Your task to perform on an android device: check out phone information Image 0: 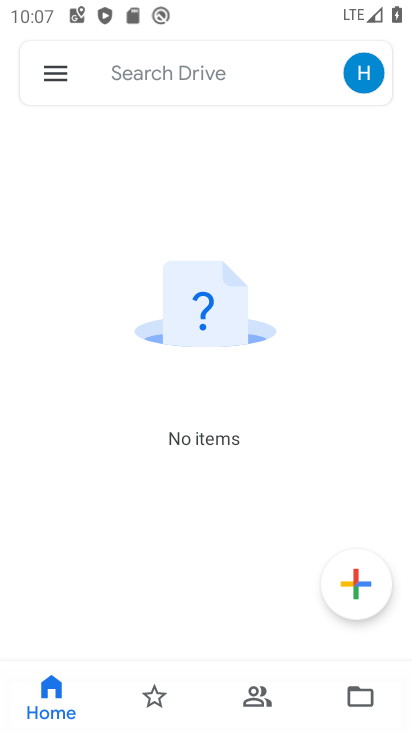
Step 0: drag from (228, 241) to (242, 73)
Your task to perform on an android device: check out phone information Image 1: 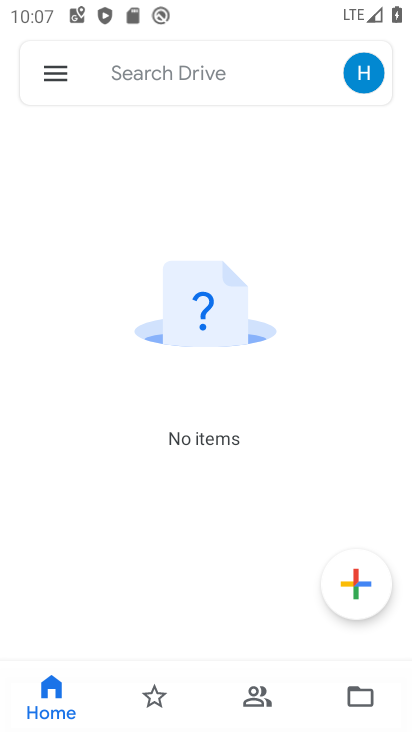
Step 1: press home button
Your task to perform on an android device: check out phone information Image 2: 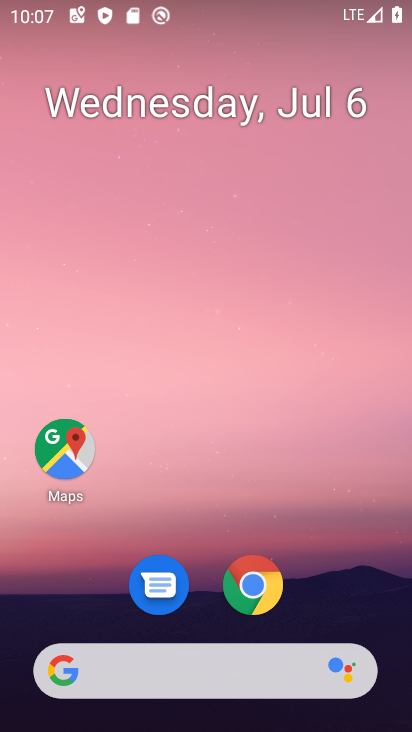
Step 2: drag from (198, 492) to (213, 21)
Your task to perform on an android device: check out phone information Image 3: 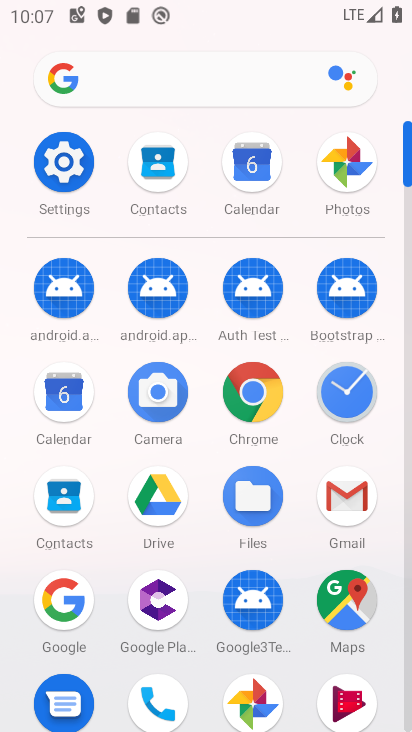
Step 3: drag from (198, 527) to (215, 297)
Your task to perform on an android device: check out phone information Image 4: 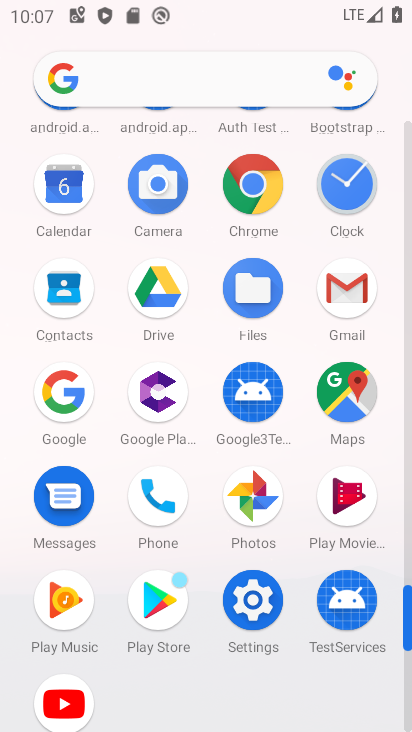
Step 4: click (167, 498)
Your task to perform on an android device: check out phone information Image 5: 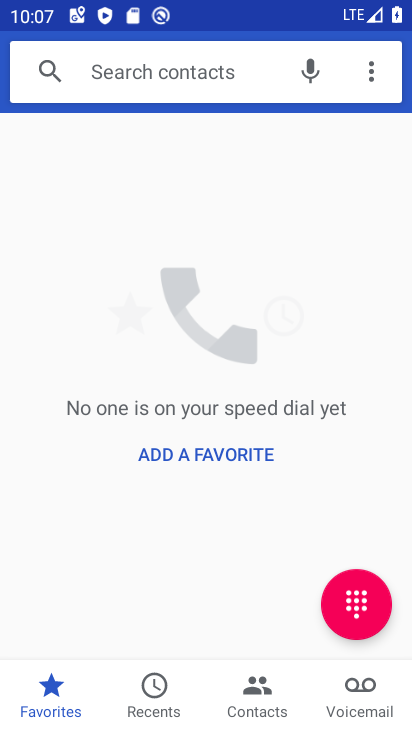
Step 5: click (371, 70)
Your task to perform on an android device: check out phone information Image 6: 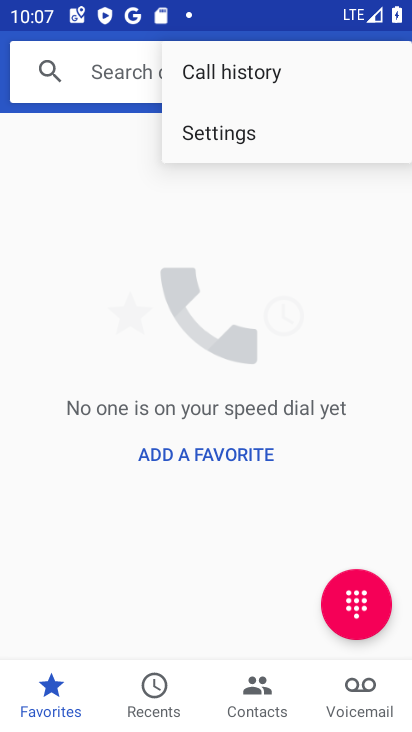
Step 6: click (273, 134)
Your task to perform on an android device: check out phone information Image 7: 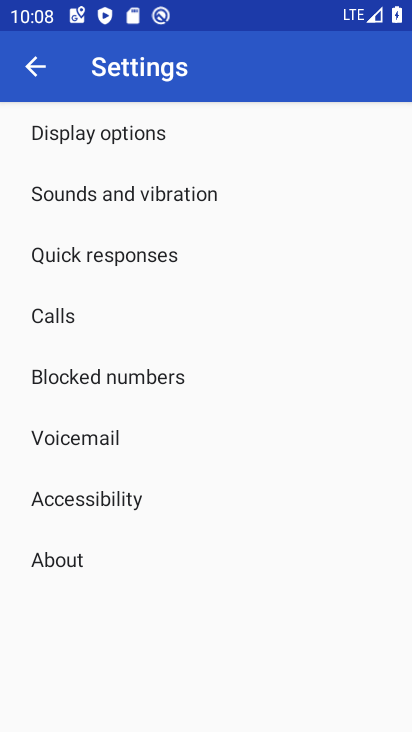
Step 7: click (52, 561)
Your task to perform on an android device: check out phone information Image 8: 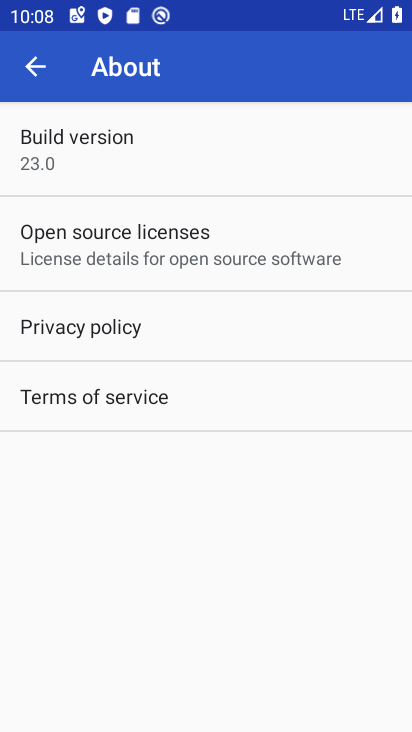
Step 8: task complete